Your task to perform on an android device: Open the phone app and click the voicemail tab. Image 0: 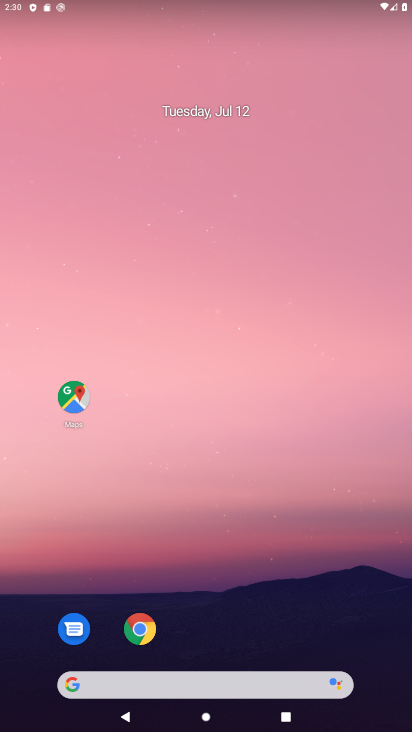
Step 0: drag from (212, 637) to (256, 105)
Your task to perform on an android device: Open the phone app and click the voicemail tab. Image 1: 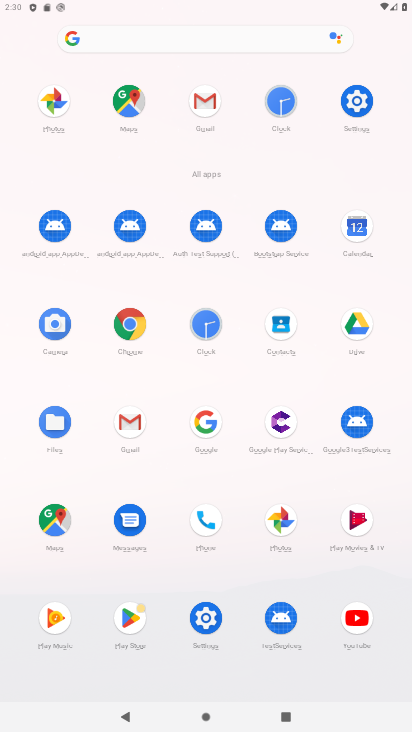
Step 1: click (202, 519)
Your task to perform on an android device: Open the phone app and click the voicemail tab. Image 2: 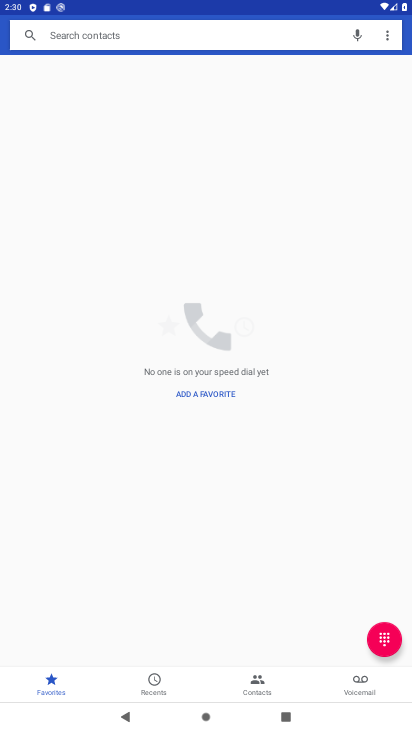
Step 2: click (356, 685)
Your task to perform on an android device: Open the phone app and click the voicemail tab. Image 3: 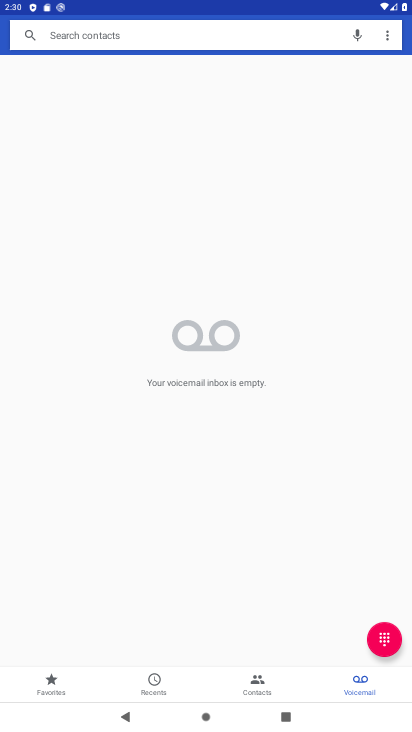
Step 3: task complete